Your task to perform on an android device: change the upload size in google photos Image 0: 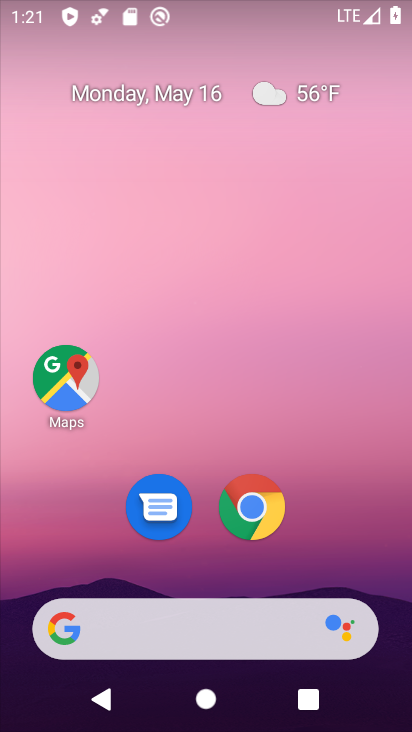
Step 0: drag from (204, 558) to (210, 158)
Your task to perform on an android device: change the upload size in google photos Image 1: 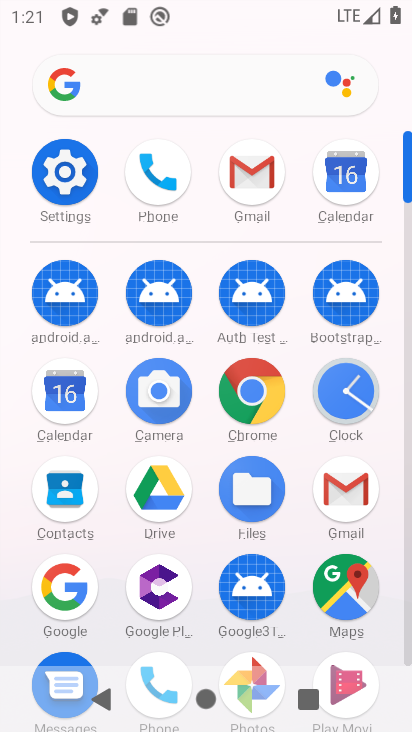
Step 1: drag from (211, 625) to (244, 373)
Your task to perform on an android device: change the upload size in google photos Image 2: 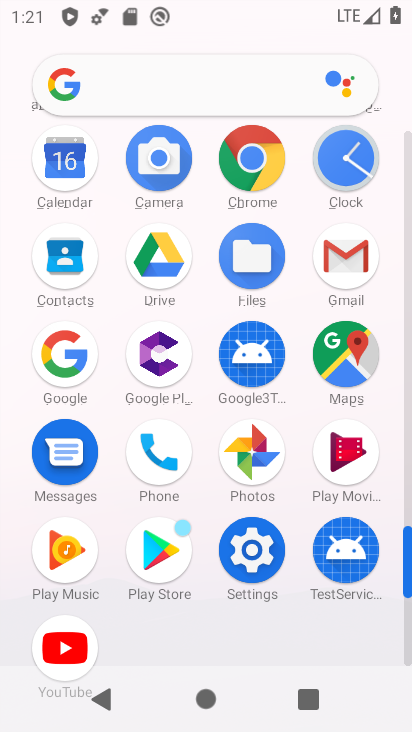
Step 2: click (264, 460)
Your task to perform on an android device: change the upload size in google photos Image 3: 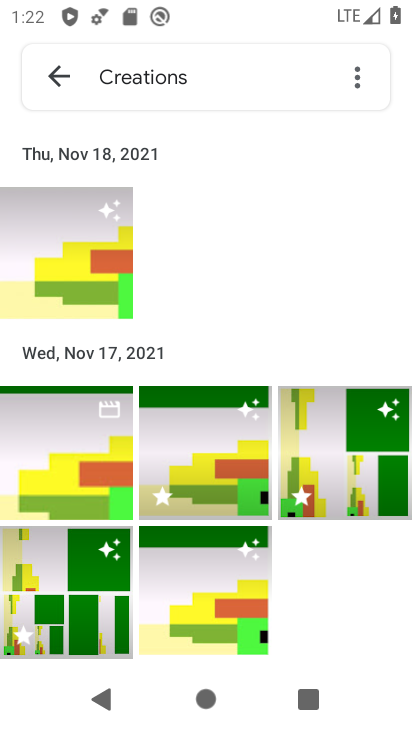
Step 3: press home button
Your task to perform on an android device: change the upload size in google photos Image 4: 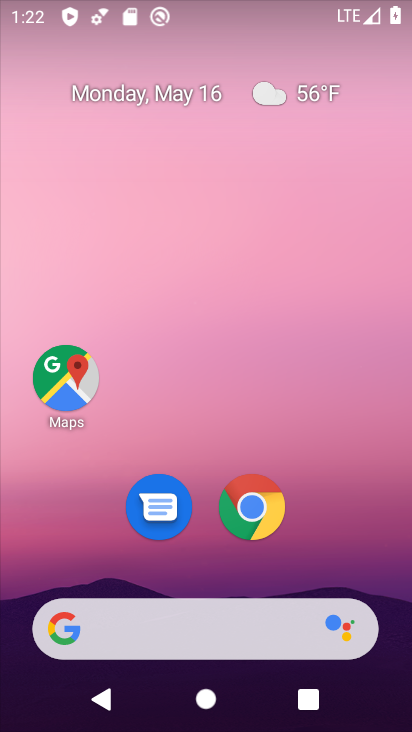
Step 4: drag from (197, 566) to (195, 153)
Your task to perform on an android device: change the upload size in google photos Image 5: 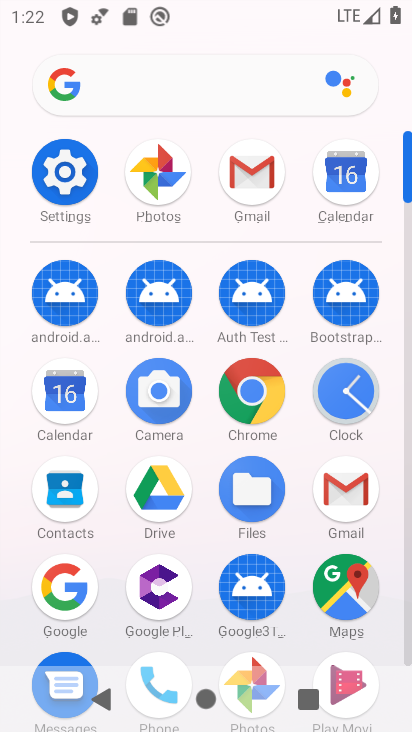
Step 5: drag from (238, 623) to (264, 356)
Your task to perform on an android device: change the upload size in google photos Image 6: 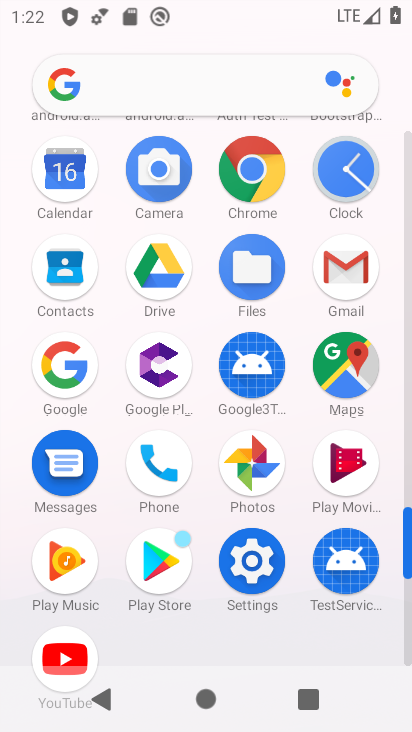
Step 6: click (259, 482)
Your task to perform on an android device: change the upload size in google photos Image 7: 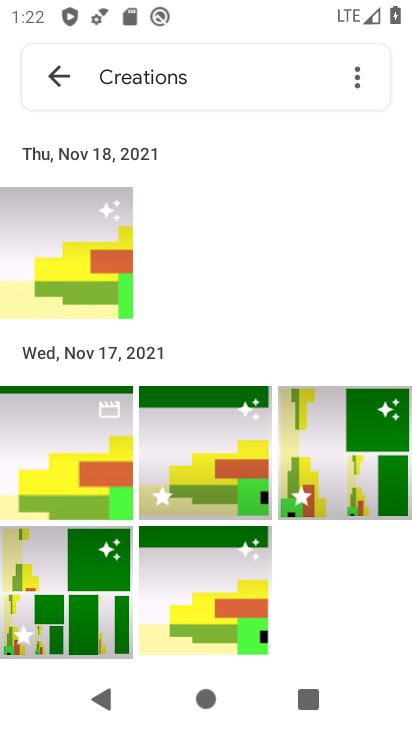
Step 7: drag from (259, 482) to (287, 266)
Your task to perform on an android device: change the upload size in google photos Image 8: 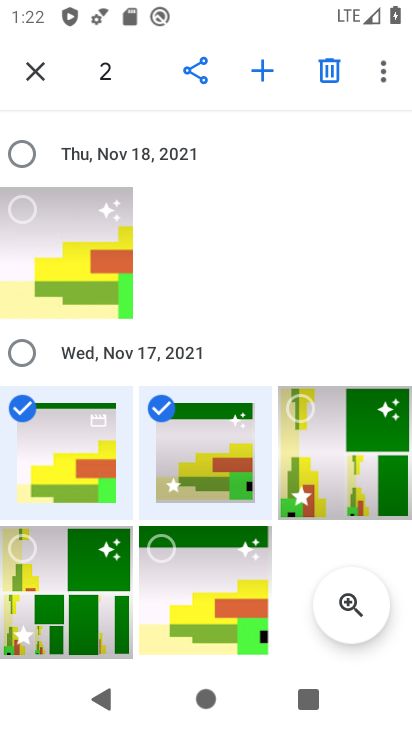
Step 8: click (14, 63)
Your task to perform on an android device: change the upload size in google photos Image 9: 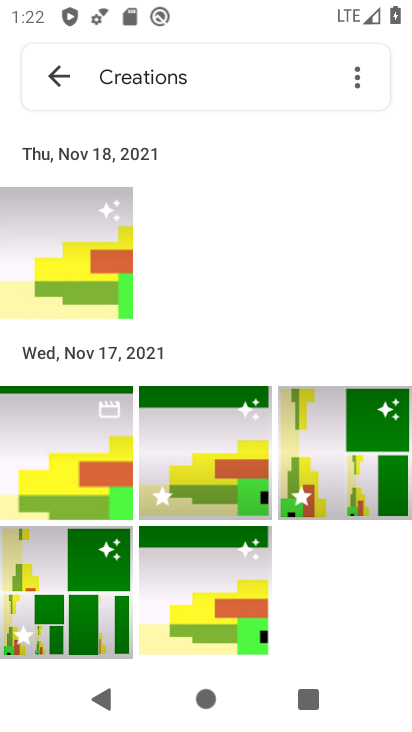
Step 9: drag from (328, 557) to (342, 234)
Your task to perform on an android device: change the upload size in google photos Image 10: 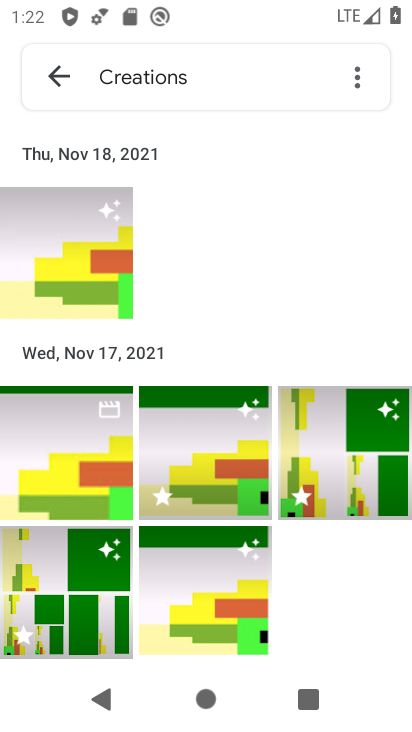
Step 10: click (64, 70)
Your task to perform on an android device: change the upload size in google photos Image 11: 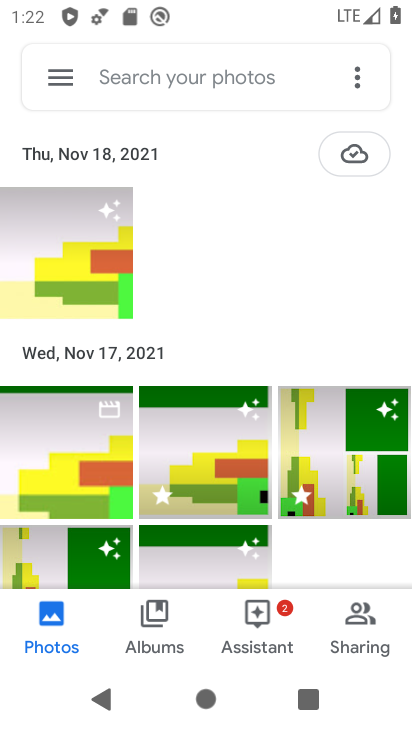
Step 11: click (57, 77)
Your task to perform on an android device: change the upload size in google photos Image 12: 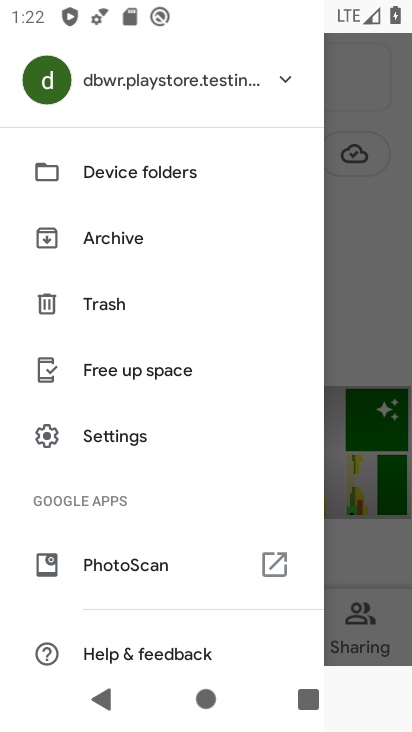
Step 12: click (128, 600)
Your task to perform on an android device: change the upload size in google photos Image 13: 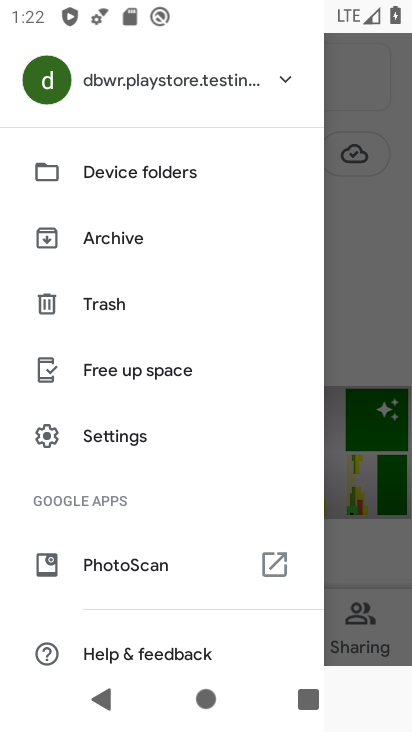
Step 13: drag from (120, 543) to (160, 300)
Your task to perform on an android device: change the upload size in google photos Image 14: 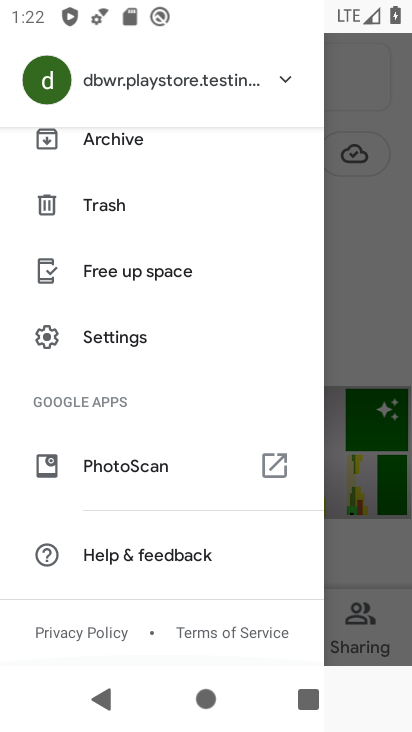
Step 14: click (114, 330)
Your task to perform on an android device: change the upload size in google photos Image 15: 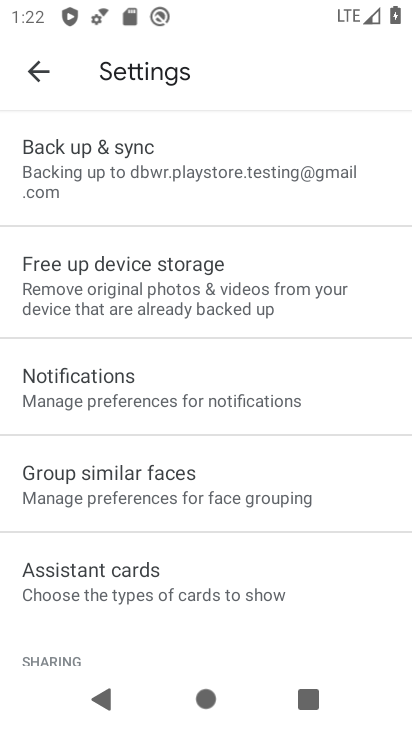
Step 15: drag from (128, 210) to (192, 497)
Your task to perform on an android device: change the upload size in google photos Image 16: 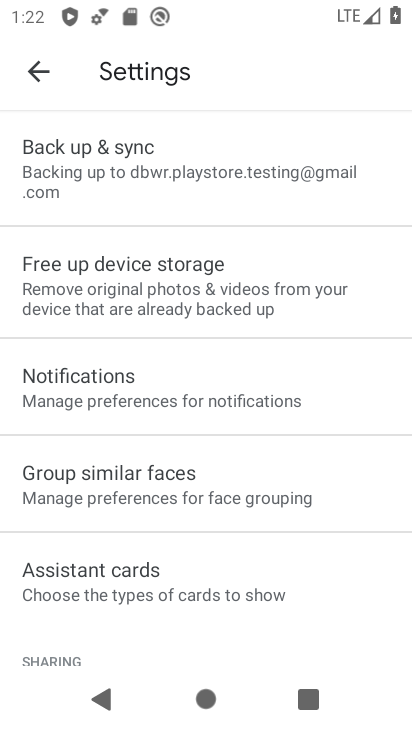
Step 16: drag from (191, 568) to (224, 268)
Your task to perform on an android device: change the upload size in google photos Image 17: 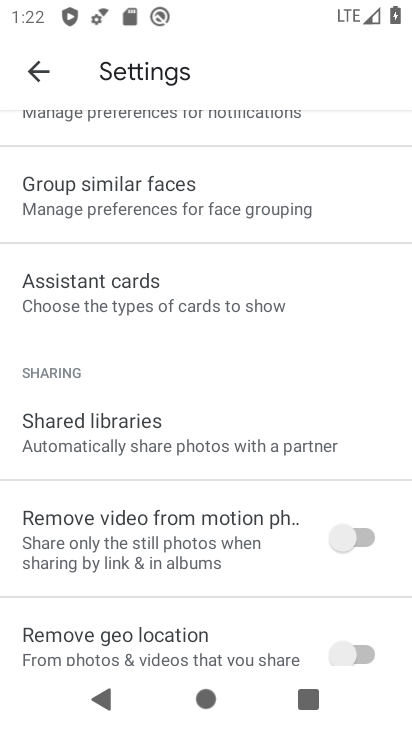
Step 17: drag from (155, 503) to (182, 282)
Your task to perform on an android device: change the upload size in google photos Image 18: 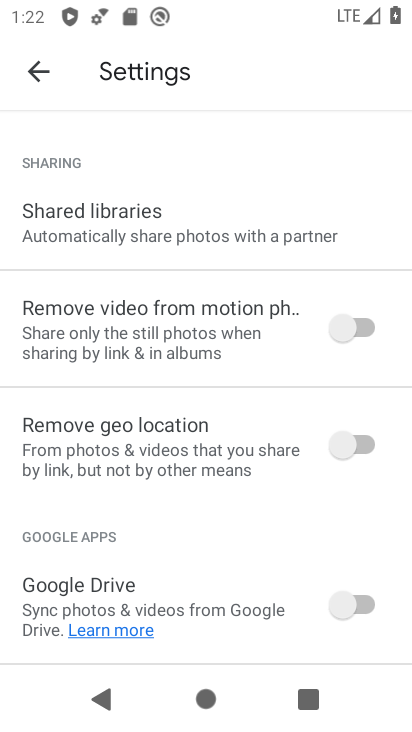
Step 18: drag from (191, 197) to (208, 511)
Your task to perform on an android device: change the upload size in google photos Image 19: 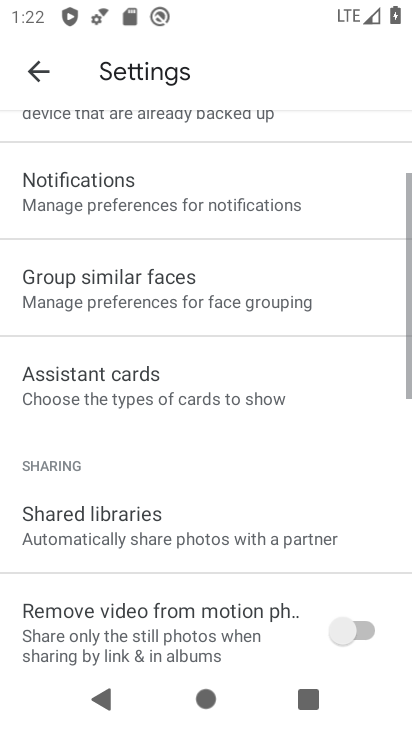
Step 19: drag from (206, 148) to (206, 447)
Your task to perform on an android device: change the upload size in google photos Image 20: 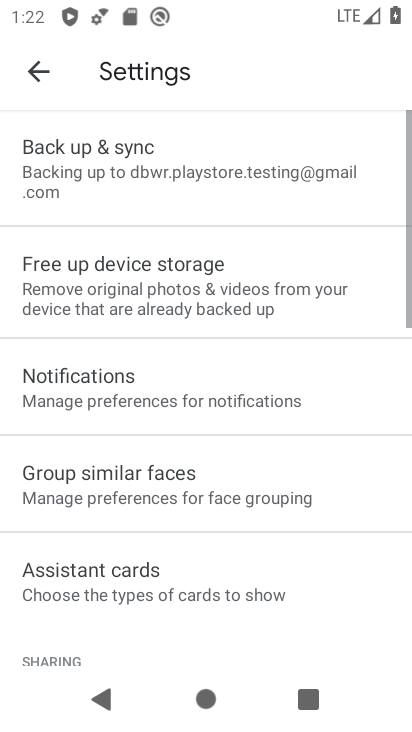
Step 20: drag from (177, 173) to (180, 371)
Your task to perform on an android device: change the upload size in google photos Image 21: 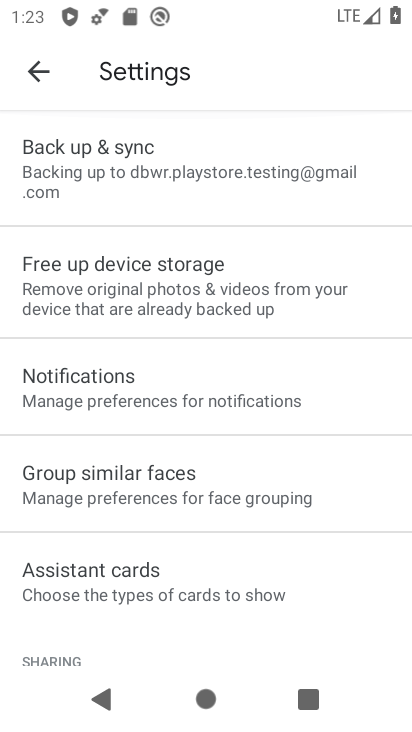
Step 21: click (78, 151)
Your task to perform on an android device: change the upload size in google photos Image 22: 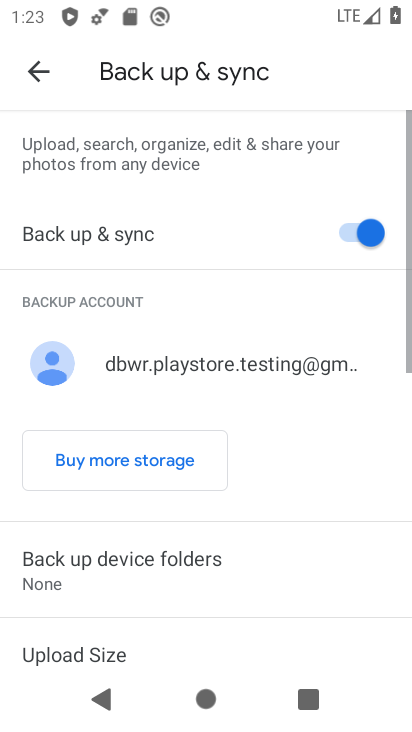
Step 22: drag from (159, 551) to (220, 237)
Your task to perform on an android device: change the upload size in google photos Image 23: 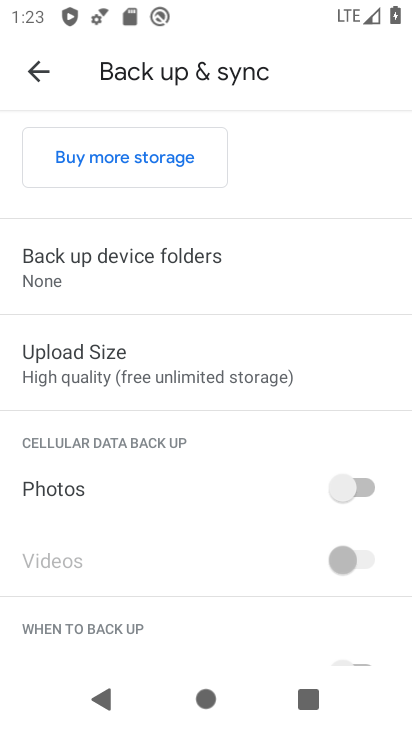
Step 23: click (131, 372)
Your task to perform on an android device: change the upload size in google photos Image 24: 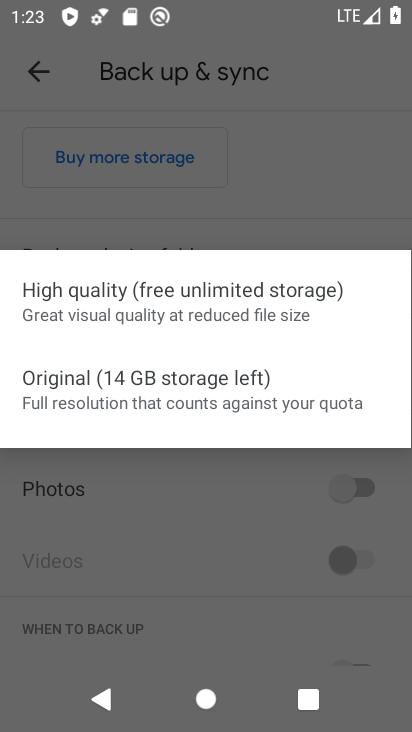
Step 24: click (131, 372)
Your task to perform on an android device: change the upload size in google photos Image 25: 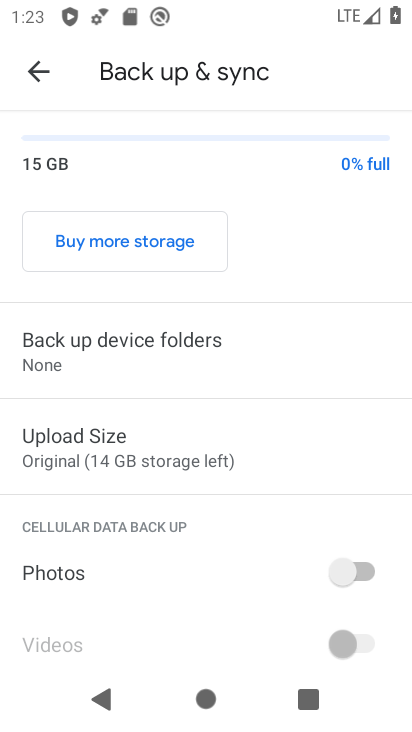
Step 25: task complete